Your task to perform on an android device: toggle show notifications on the lock screen Image 0: 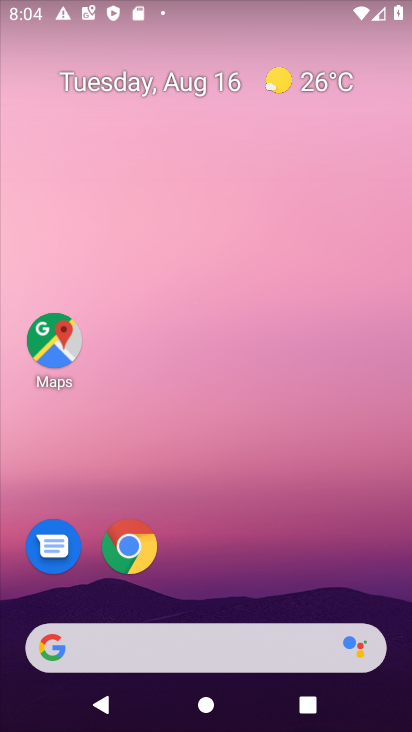
Step 0: drag from (214, 534) to (264, 0)
Your task to perform on an android device: toggle show notifications on the lock screen Image 1: 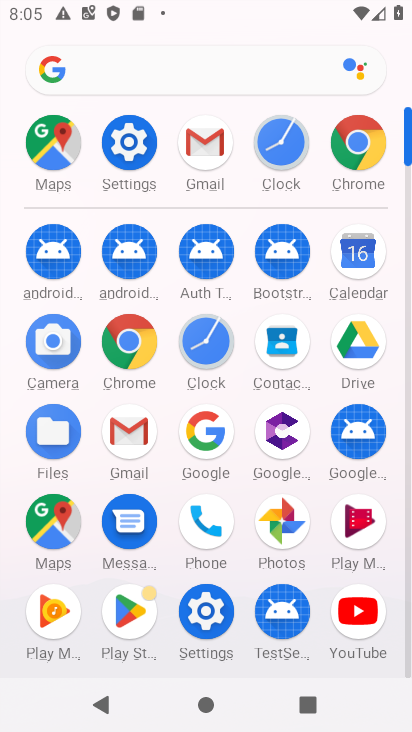
Step 1: click (126, 141)
Your task to perform on an android device: toggle show notifications on the lock screen Image 2: 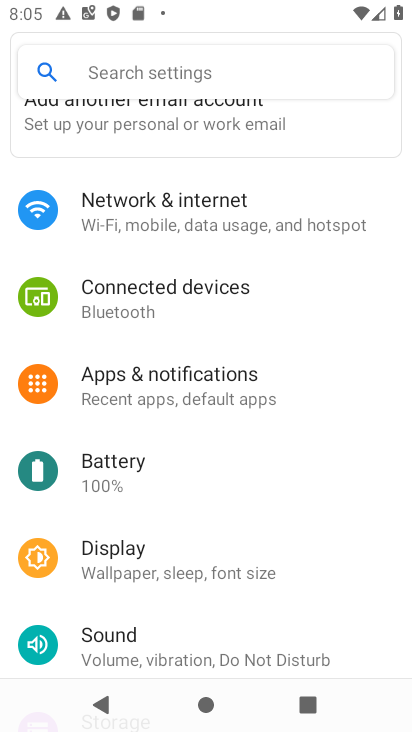
Step 2: click (179, 380)
Your task to perform on an android device: toggle show notifications on the lock screen Image 3: 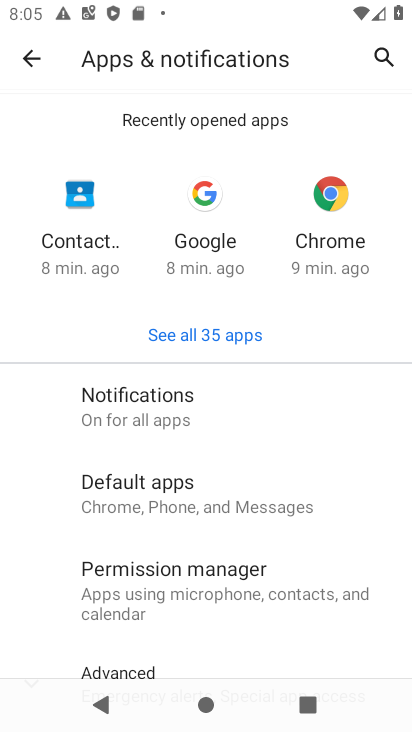
Step 3: click (175, 393)
Your task to perform on an android device: toggle show notifications on the lock screen Image 4: 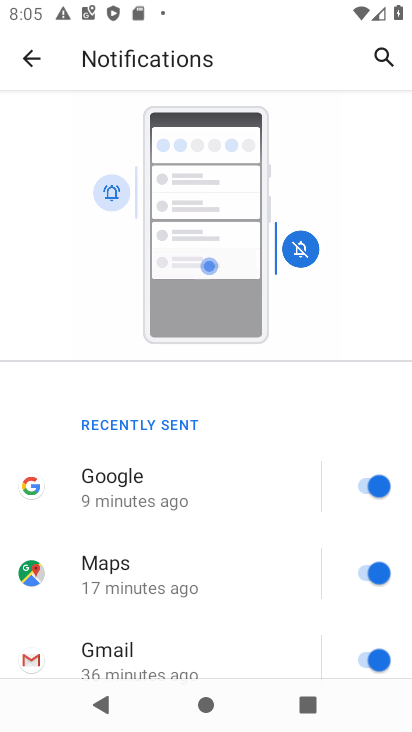
Step 4: drag from (240, 561) to (267, 0)
Your task to perform on an android device: toggle show notifications on the lock screen Image 5: 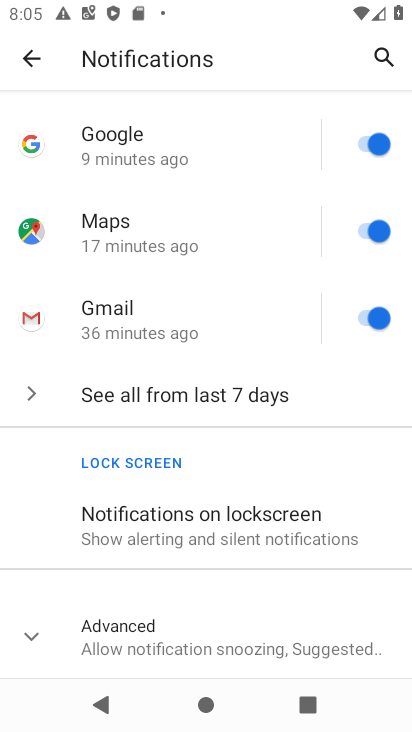
Step 5: click (262, 513)
Your task to perform on an android device: toggle show notifications on the lock screen Image 6: 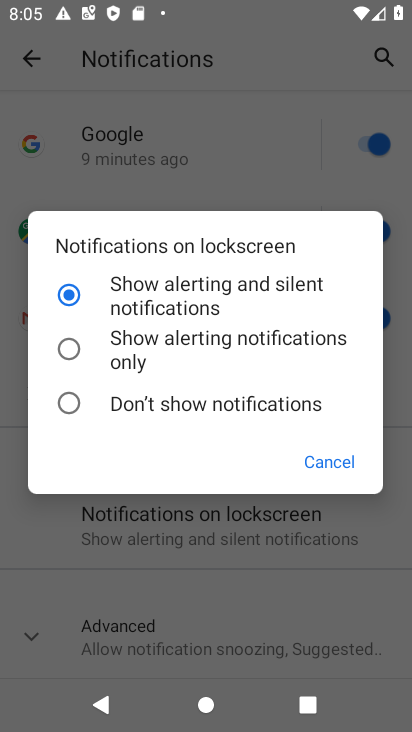
Step 6: click (67, 399)
Your task to perform on an android device: toggle show notifications on the lock screen Image 7: 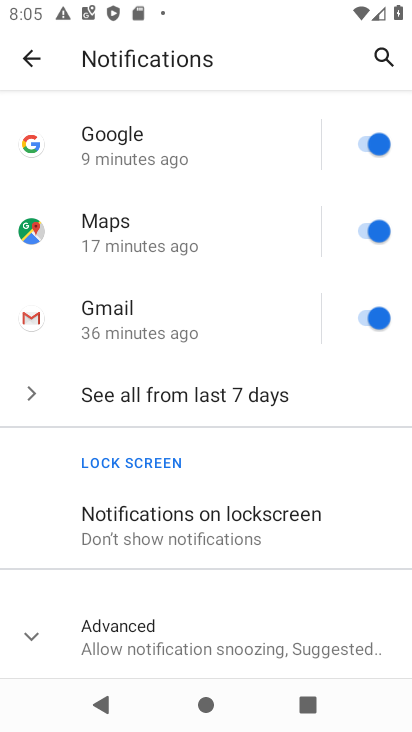
Step 7: task complete